Your task to perform on an android device: open a bookmark in the chrome app Image 0: 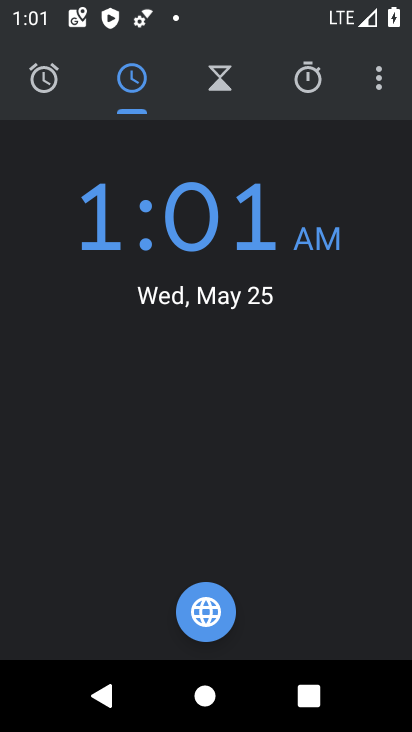
Step 0: press home button
Your task to perform on an android device: open a bookmark in the chrome app Image 1: 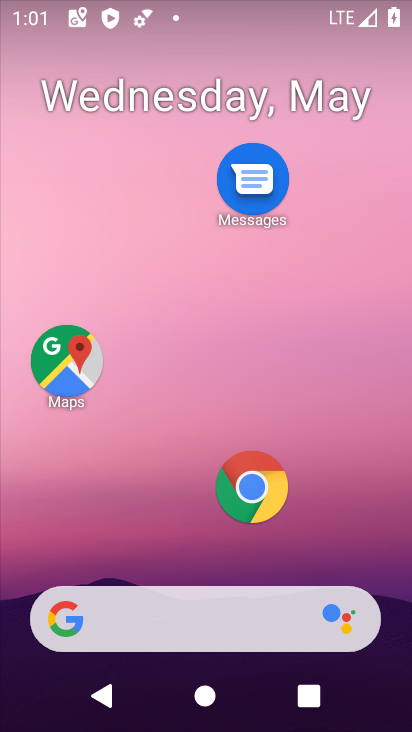
Step 1: click (261, 499)
Your task to perform on an android device: open a bookmark in the chrome app Image 2: 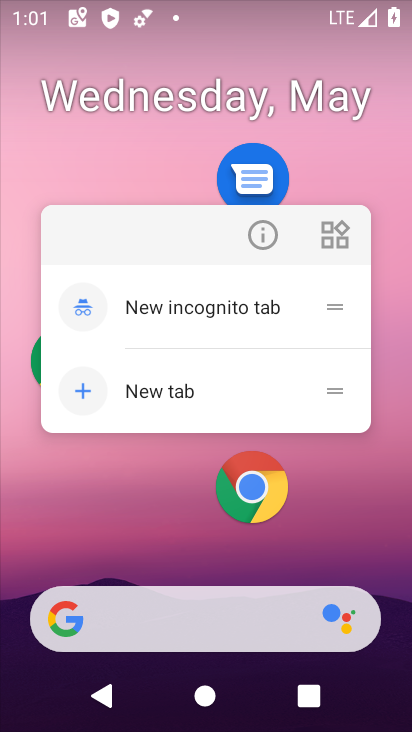
Step 2: click (259, 498)
Your task to perform on an android device: open a bookmark in the chrome app Image 3: 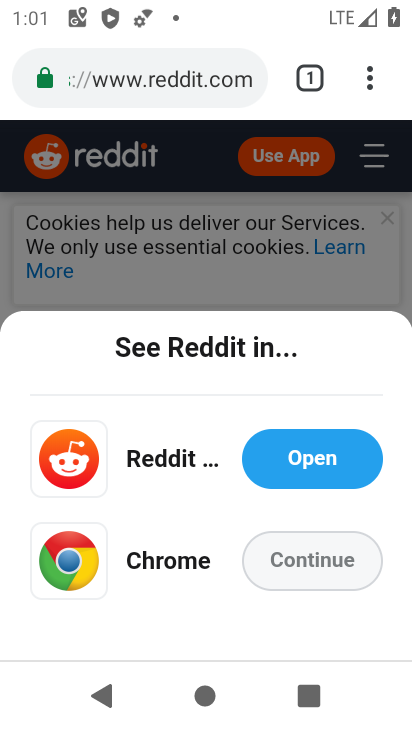
Step 3: click (370, 86)
Your task to perform on an android device: open a bookmark in the chrome app Image 4: 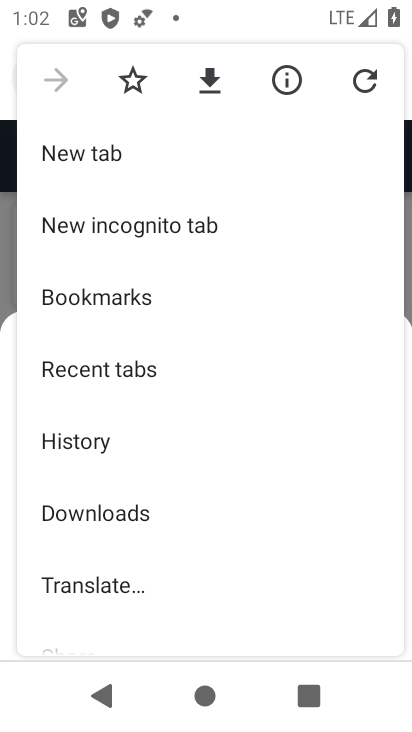
Step 4: click (159, 309)
Your task to perform on an android device: open a bookmark in the chrome app Image 5: 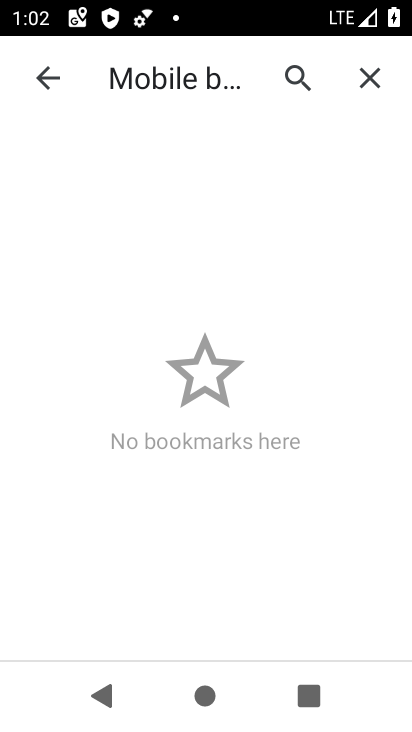
Step 5: task complete